Your task to perform on an android device: What is the recent news? Image 0: 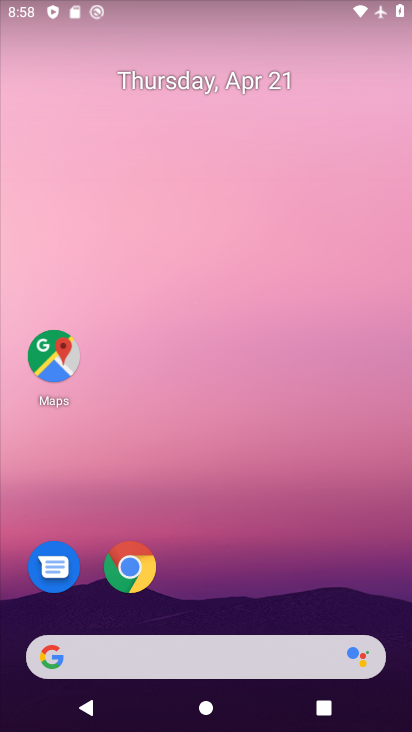
Step 0: drag from (9, 235) to (402, 367)
Your task to perform on an android device: What is the recent news? Image 1: 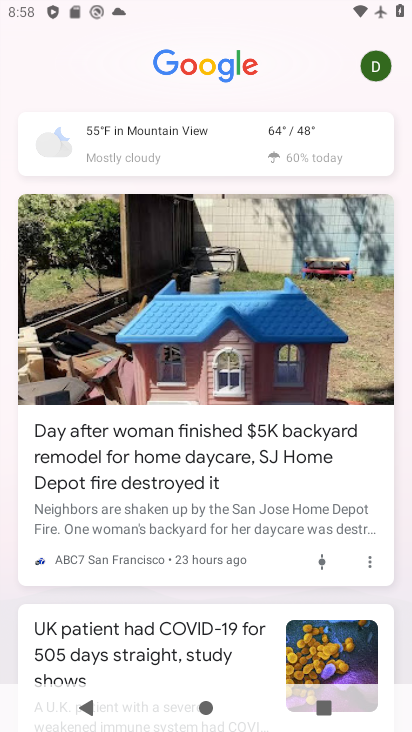
Step 1: task complete